Your task to perform on an android device: open the mobile data screen to see how much data has been used Image 0: 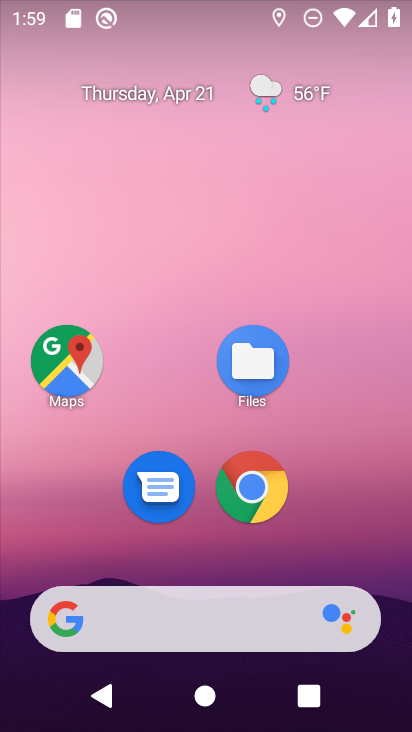
Step 0: drag from (391, 579) to (402, 118)
Your task to perform on an android device: open the mobile data screen to see how much data has been used Image 1: 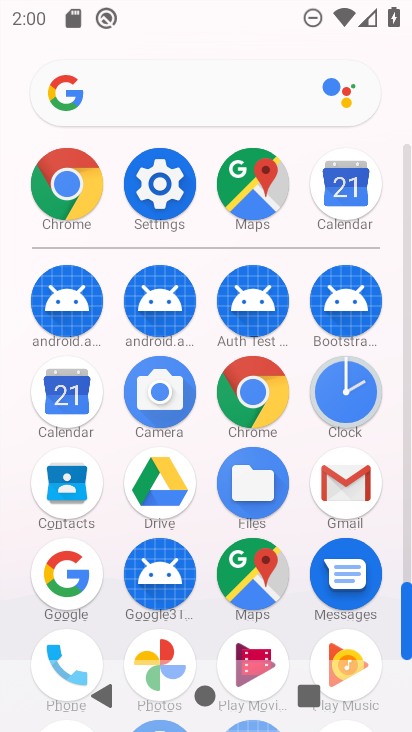
Step 1: click (161, 193)
Your task to perform on an android device: open the mobile data screen to see how much data has been used Image 2: 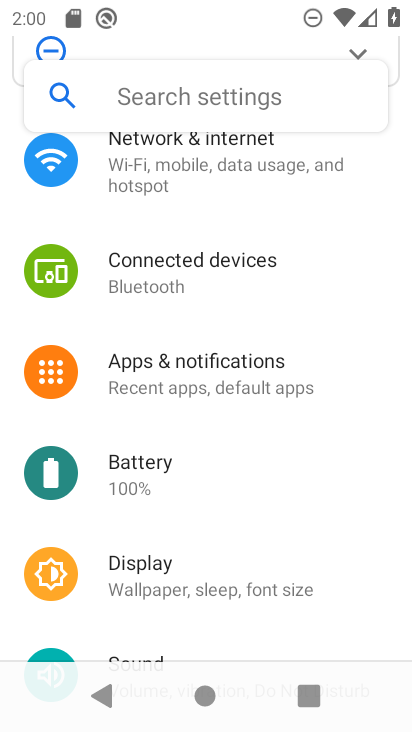
Step 2: click (236, 155)
Your task to perform on an android device: open the mobile data screen to see how much data has been used Image 3: 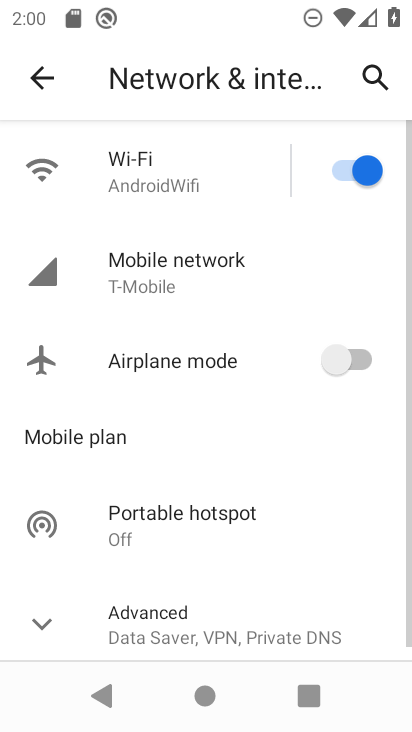
Step 3: click (201, 267)
Your task to perform on an android device: open the mobile data screen to see how much data has been used Image 4: 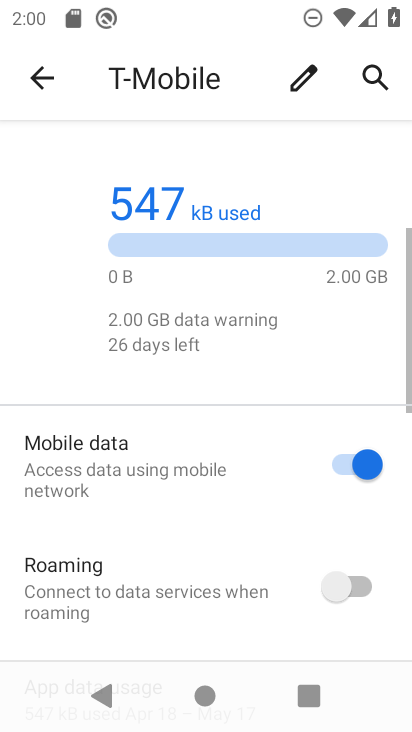
Step 4: drag from (234, 540) to (235, 276)
Your task to perform on an android device: open the mobile data screen to see how much data has been used Image 5: 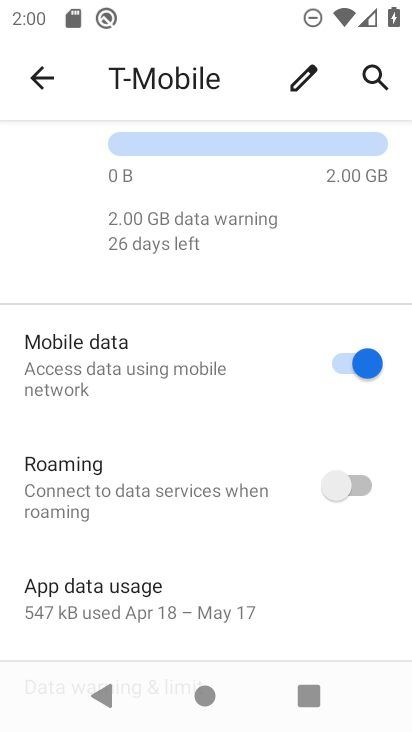
Step 5: click (180, 603)
Your task to perform on an android device: open the mobile data screen to see how much data has been used Image 6: 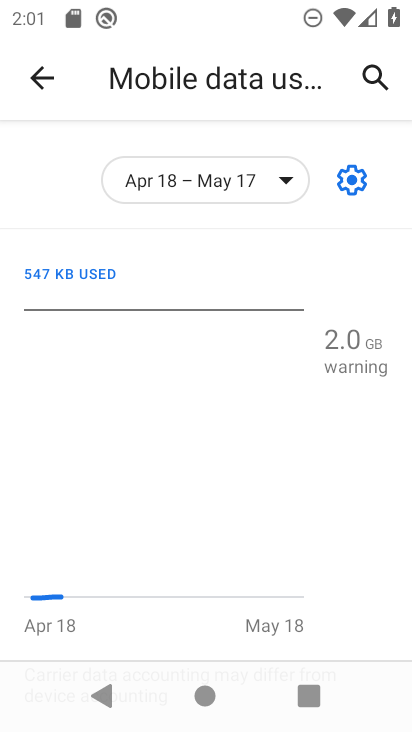
Step 6: task complete